Your task to perform on an android device: Open the stopwatch Image 0: 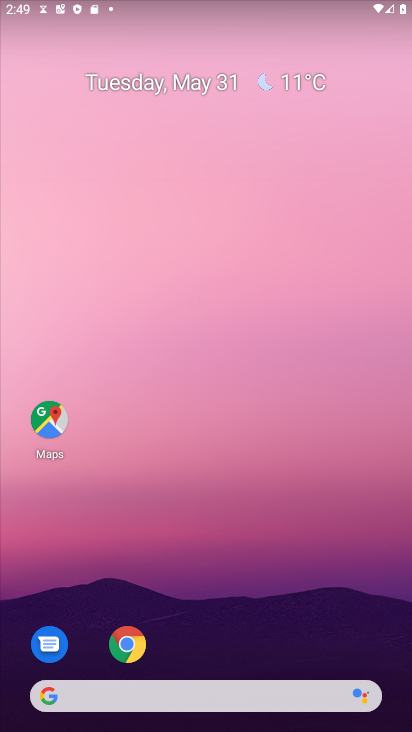
Step 0: drag from (234, 592) to (159, 211)
Your task to perform on an android device: Open the stopwatch Image 1: 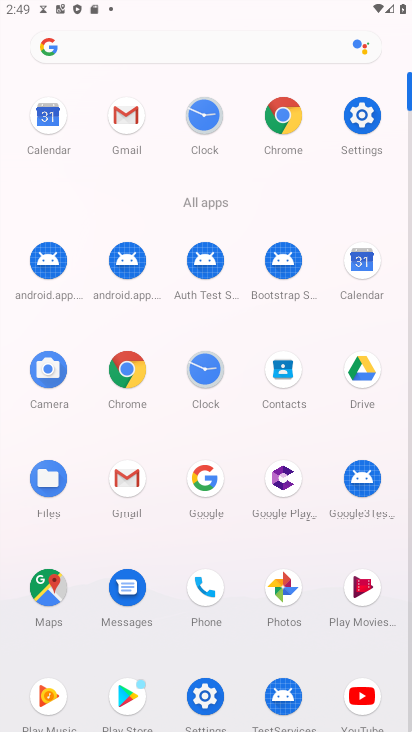
Step 1: click (194, 114)
Your task to perform on an android device: Open the stopwatch Image 2: 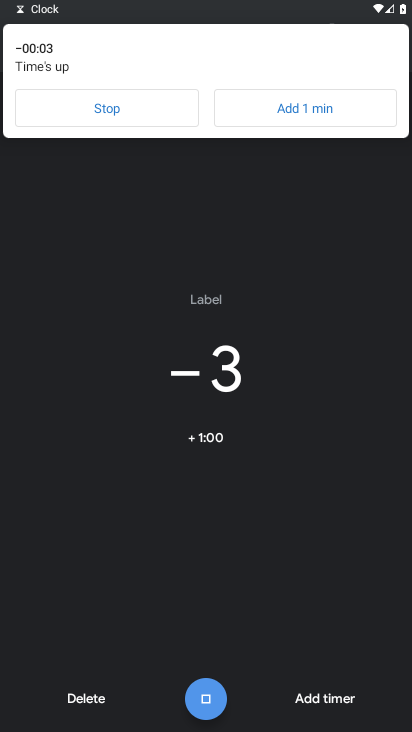
Step 2: click (140, 107)
Your task to perform on an android device: Open the stopwatch Image 3: 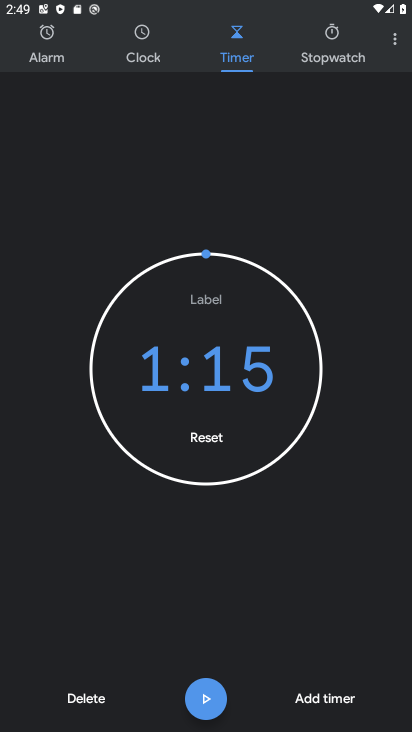
Step 3: click (109, 104)
Your task to perform on an android device: Open the stopwatch Image 4: 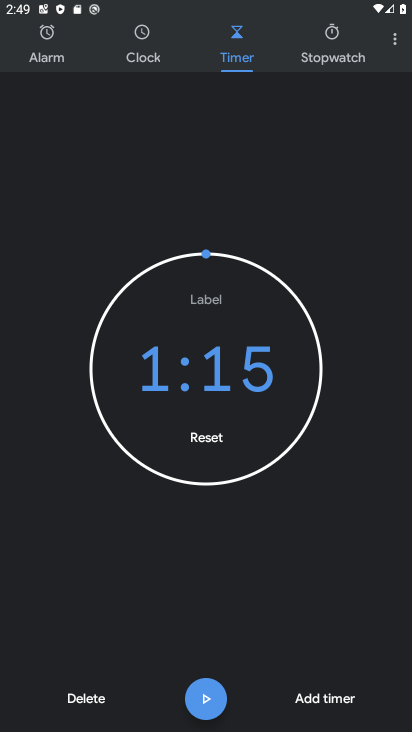
Step 4: click (318, 40)
Your task to perform on an android device: Open the stopwatch Image 5: 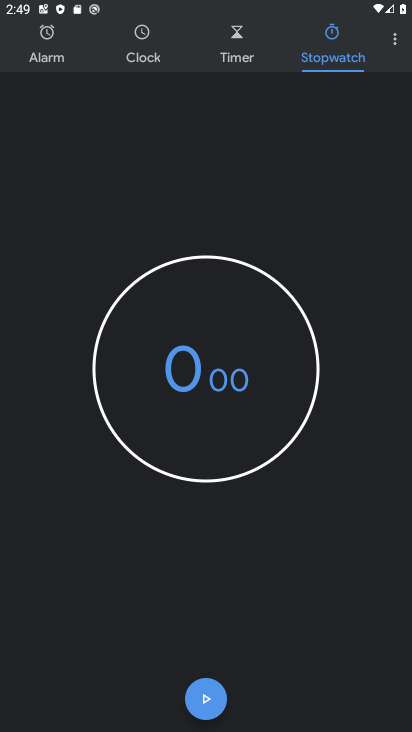
Step 5: task complete